Your task to perform on an android device: turn off location Image 0: 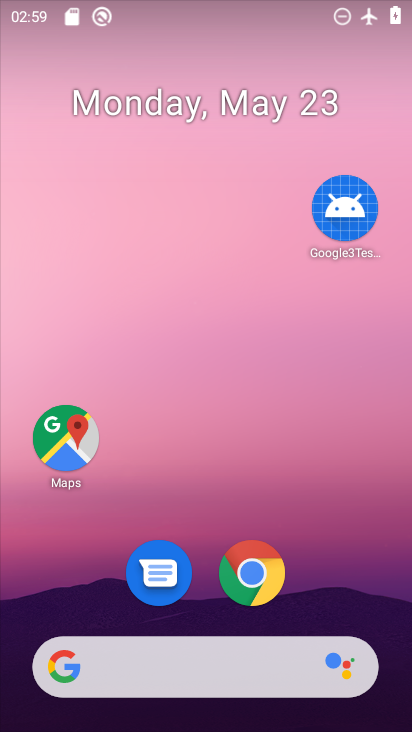
Step 0: drag from (330, 520) to (263, 77)
Your task to perform on an android device: turn off location Image 1: 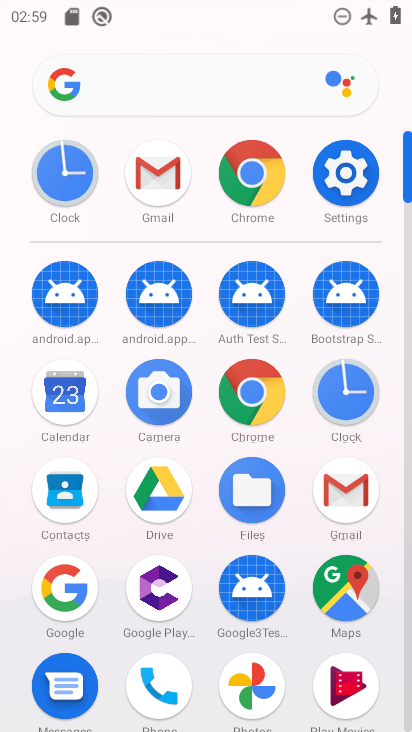
Step 1: click (356, 180)
Your task to perform on an android device: turn off location Image 2: 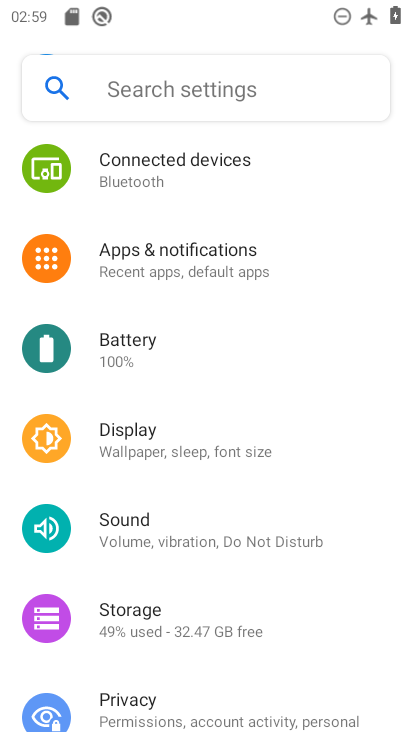
Step 2: drag from (208, 627) to (240, 217)
Your task to perform on an android device: turn off location Image 3: 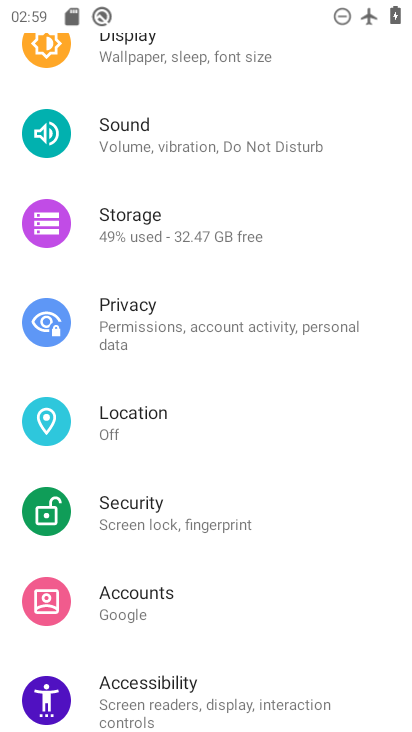
Step 3: click (115, 438)
Your task to perform on an android device: turn off location Image 4: 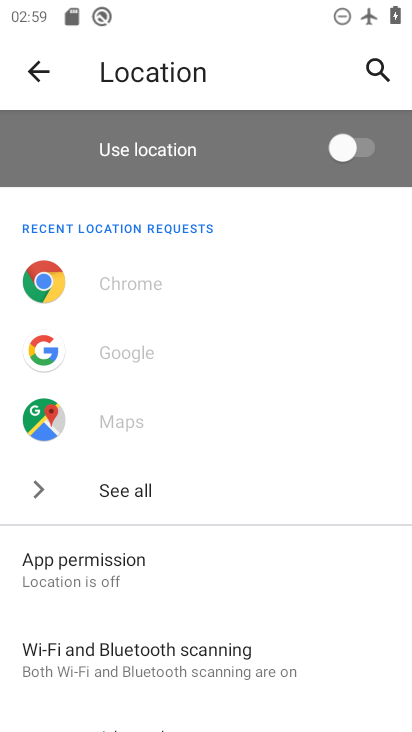
Step 4: task complete